Your task to perform on an android device: open a bookmark in the chrome app Image 0: 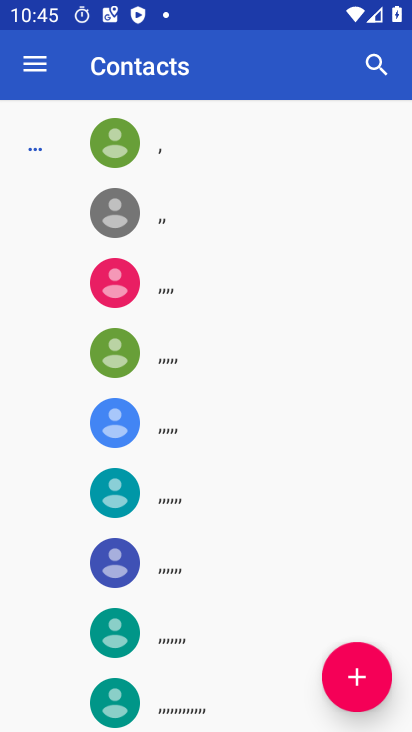
Step 0: press back button
Your task to perform on an android device: open a bookmark in the chrome app Image 1: 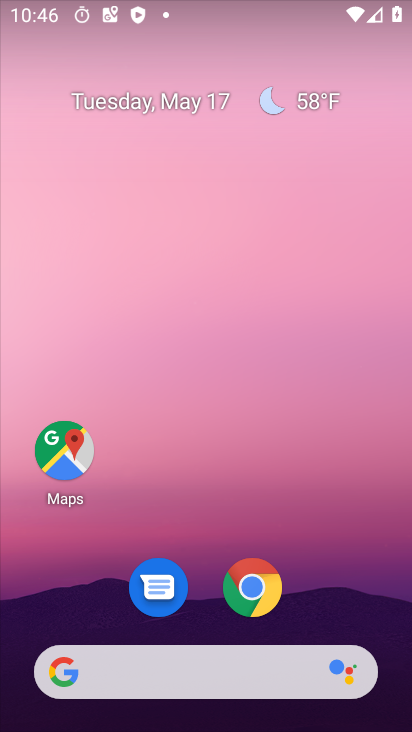
Step 1: click (252, 588)
Your task to perform on an android device: open a bookmark in the chrome app Image 2: 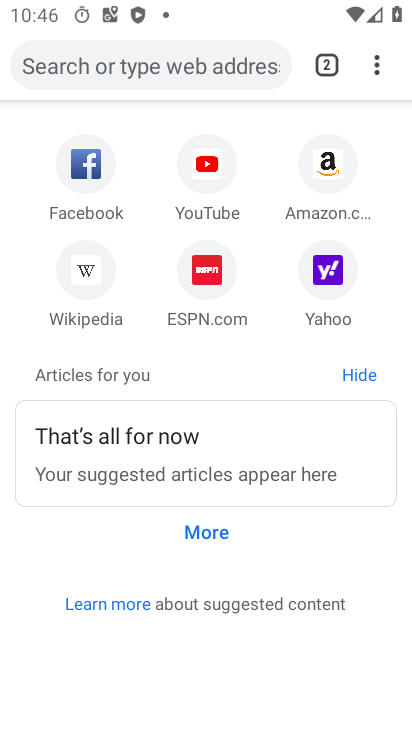
Step 2: click (378, 62)
Your task to perform on an android device: open a bookmark in the chrome app Image 3: 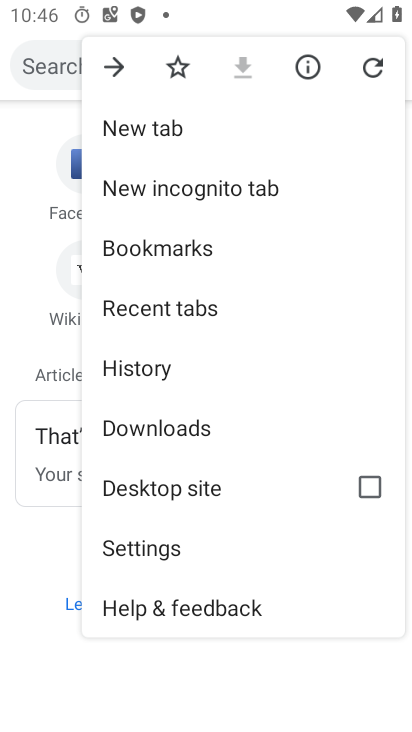
Step 3: click (200, 249)
Your task to perform on an android device: open a bookmark in the chrome app Image 4: 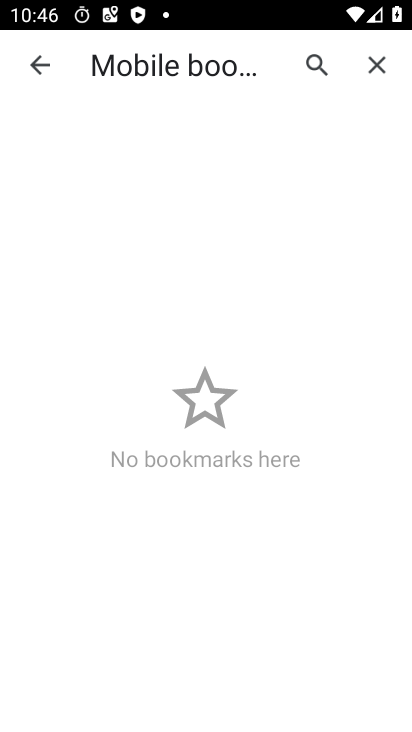
Step 4: task complete